Your task to perform on an android device: What is the news today? Image 0: 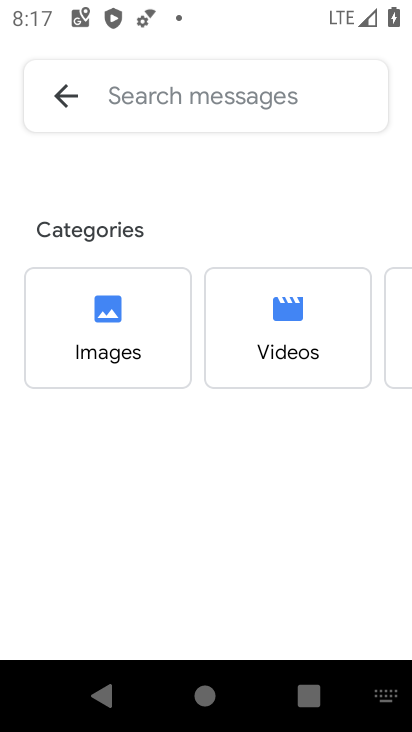
Step 0: press home button
Your task to perform on an android device: What is the news today? Image 1: 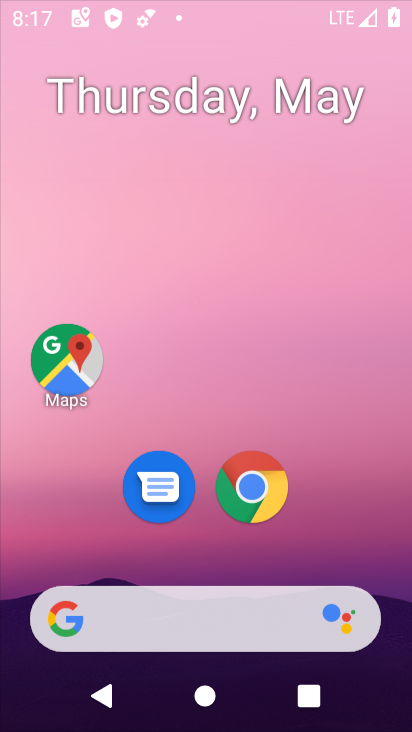
Step 1: drag from (123, 617) to (220, 174)
Your task to perform on an android device: What is the news today? Image 2: 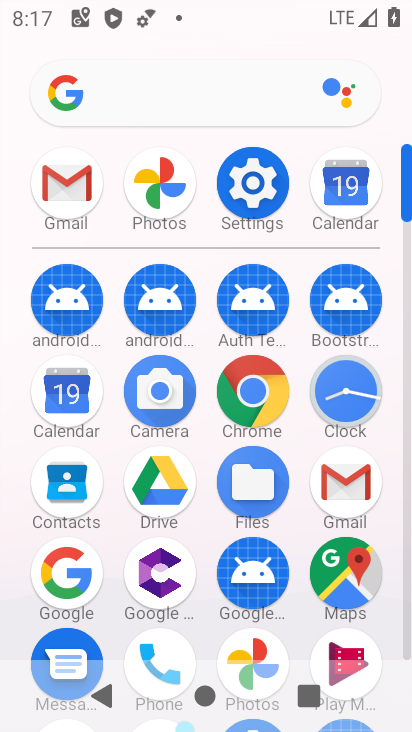
Step 2: click (153, 98)
Your task to perform on an android device: What is the news today? Image 3: 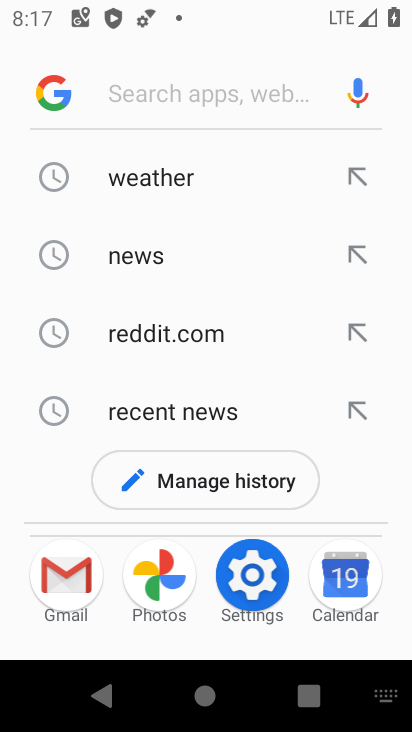
Step 3: type "news today"
Your task to perform on an android device: What is the news today? Image 4: 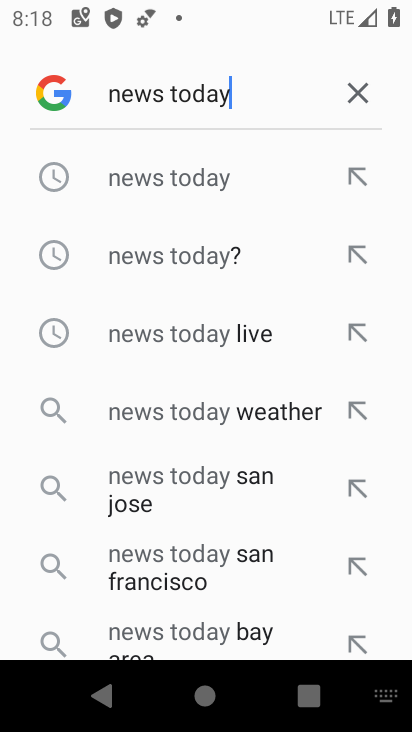
Step 4: drag from (125, 570) to (240, 192)
Your task to perform on an android device: What is the news today? Image 5: 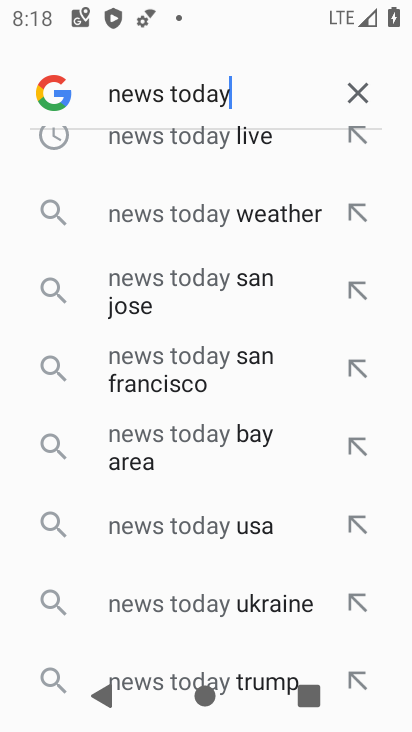
Step 5: drag from (241, 189) to (221, 707)
Your task to perform on an android device: What is the news today? Image 6: 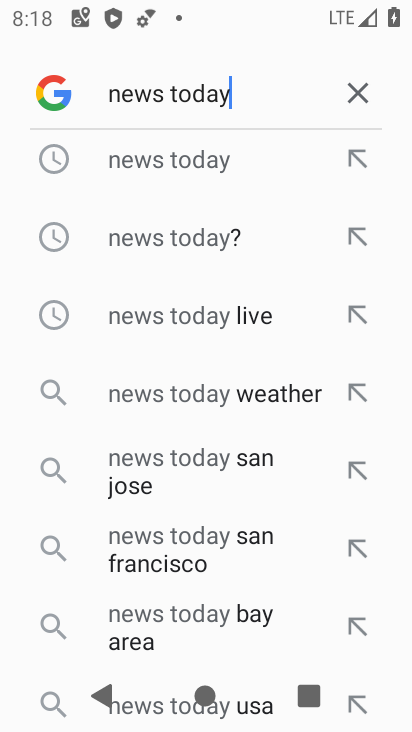
Step 6: click (221, 252)
Your task to perform on an android device: What is the news today? Image 7: 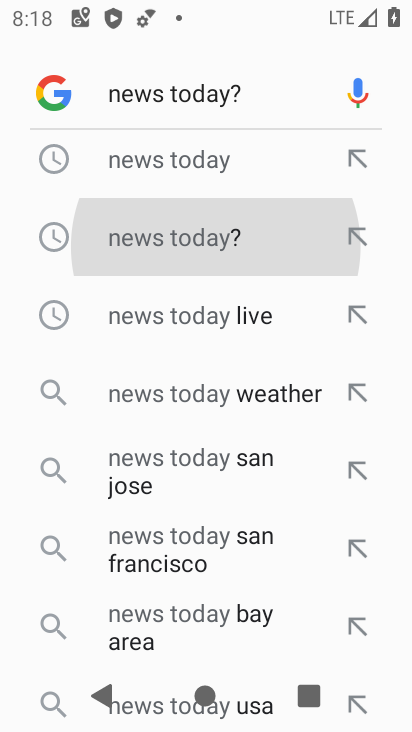
Step 7: click (221, 252)
Your task to perform on an android device: What is the news today? Image 8: 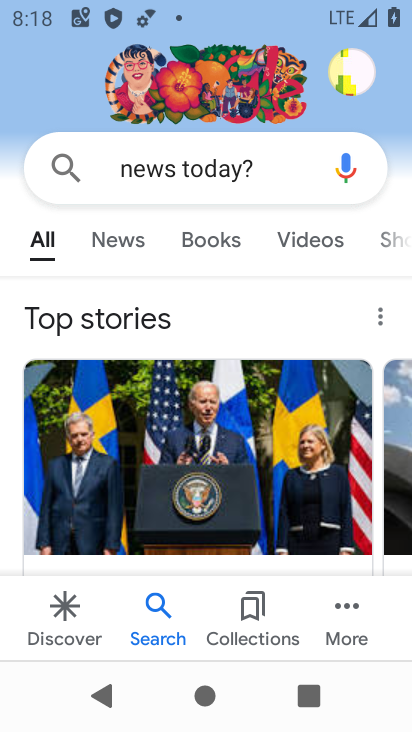
Step 8: task complete